Your task to perform on an android device: install app "Adobe Acrobat Reader: Edit PDF" Image 0: 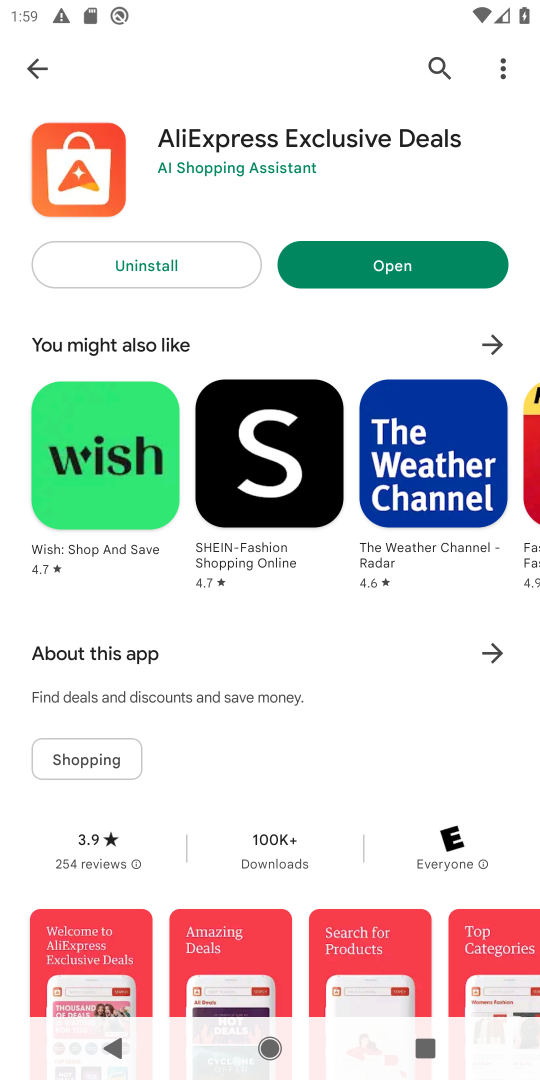
Step 0: click (444, 76)
Your task to perform on an android device: install app "Adobe Acrobat Reader: Edit PDF" Image 1: 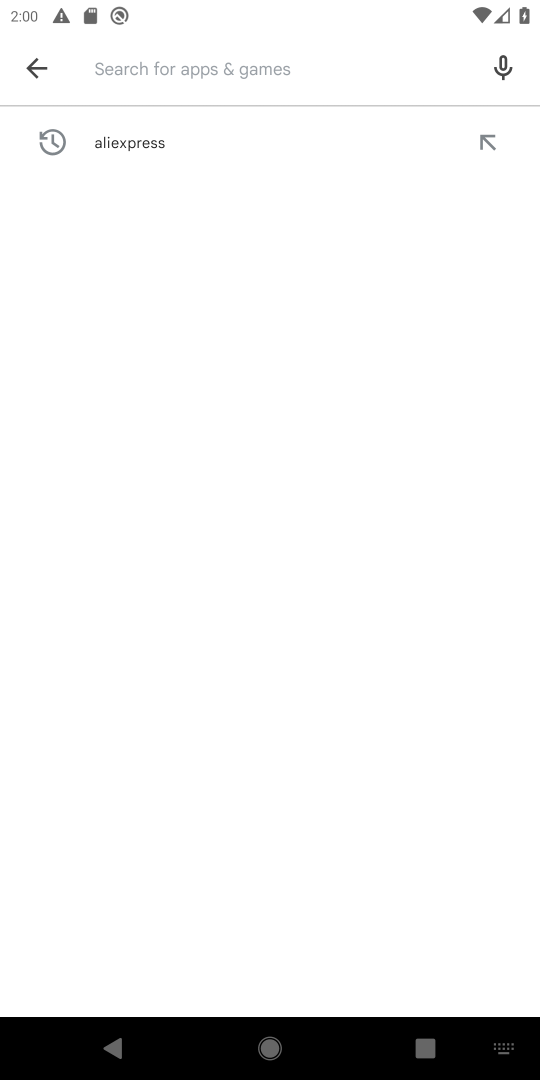
Step 1: type "Adobe Acrobat Reader: Edit PDF"
Your task to perform on an android device: install app "Adobe Acrobat Reader: Edit PDF" Image 2: 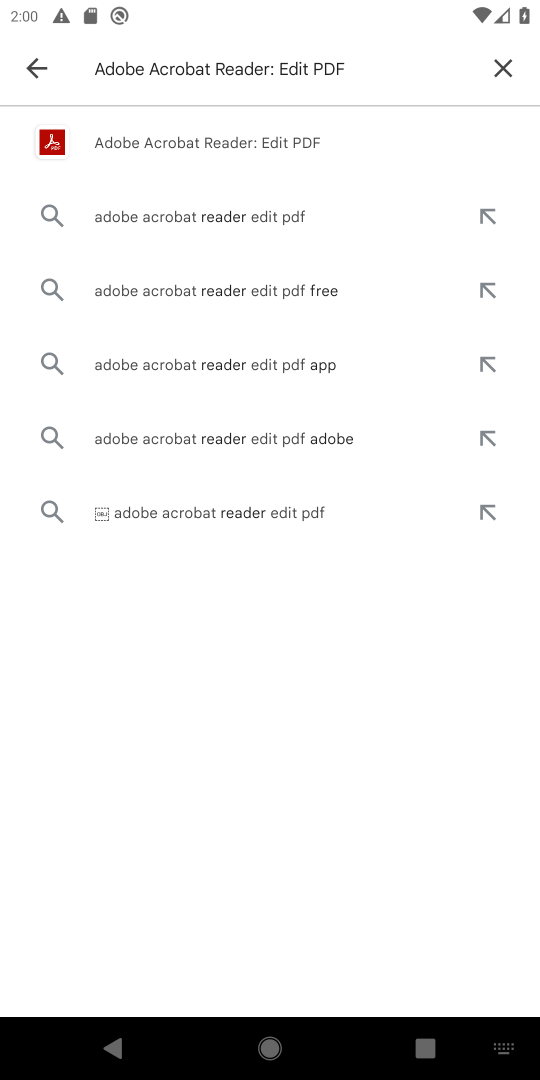
Step 2: click (189, 144)
Your task to perform on an android device: install app "Adobe Acrobat Reader: Edit PDF" Image 3: 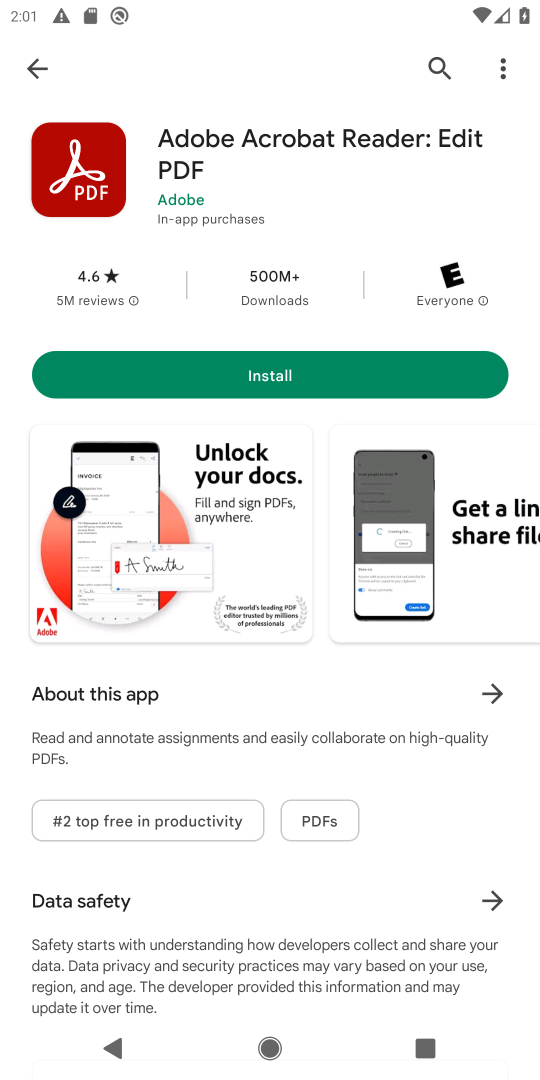
Step 3: click (263, 380)
Your task to perform on an android device: install app "Adobe Acrobat Reader: Edit PDF" Image 4: 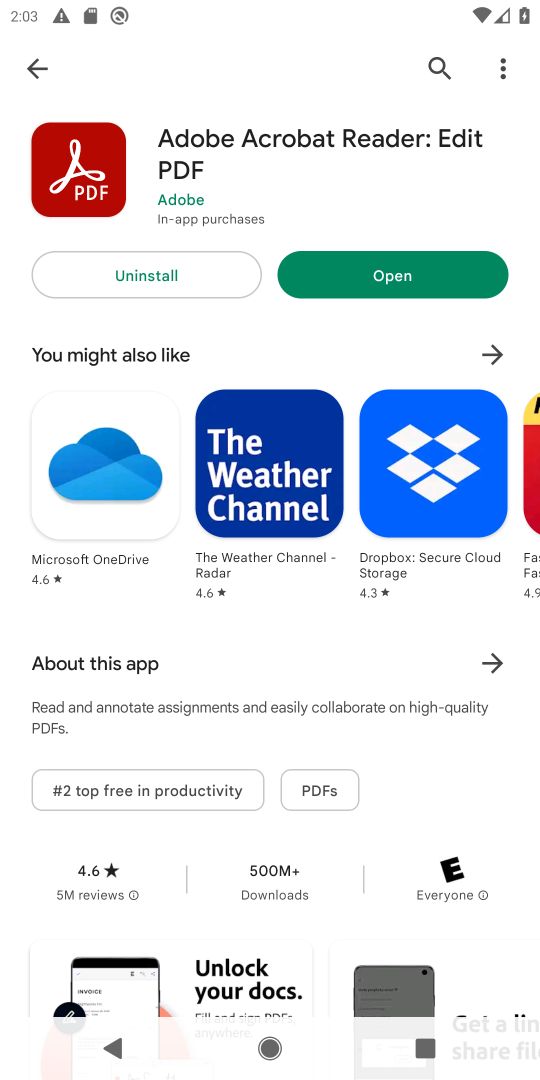
Step 4: click (393, 266)
Your task to perform on an android device: install app "Adobe Acrobat Reader: Edit PDF" Image 5: 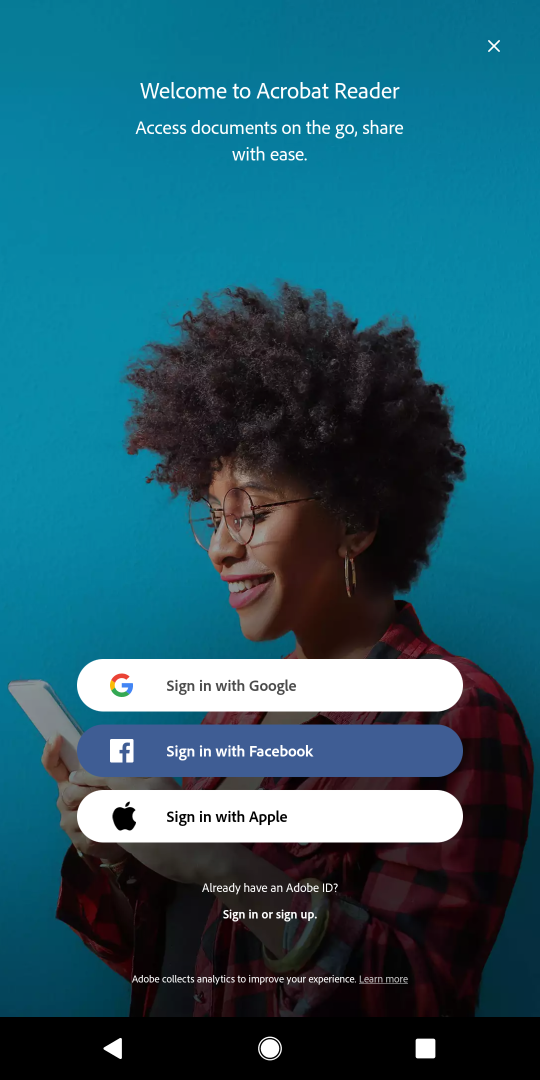
Step 5: click (262, 684)
Your task to perform on an android device: install app "Adobe Acrobat Reader: Edit PDF" Image 6: 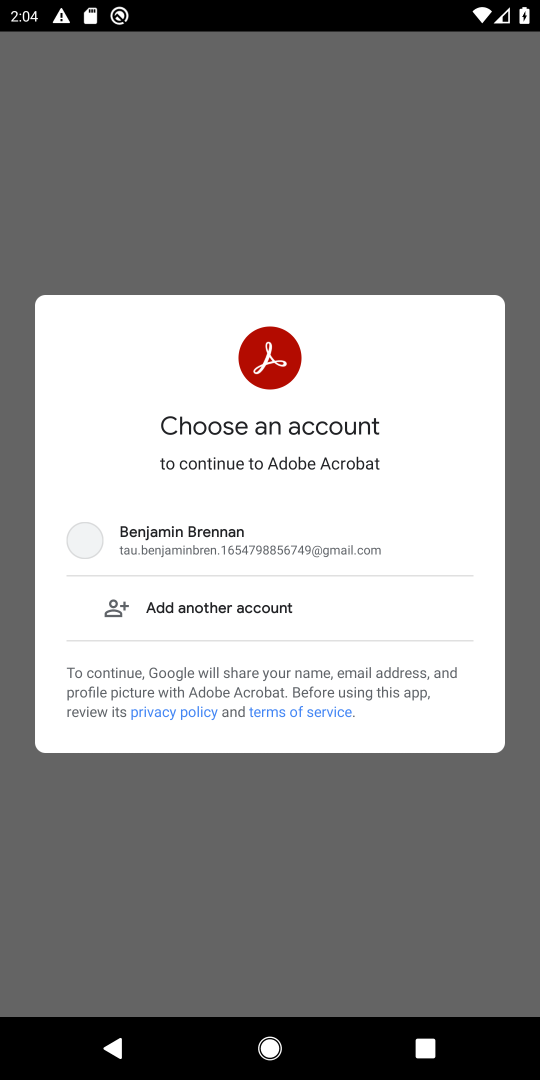
Step 6: click (269, 547)
Your task to perform on an android device: install app "Adobe Acrobat Reader: Edit PDF" Image 7: 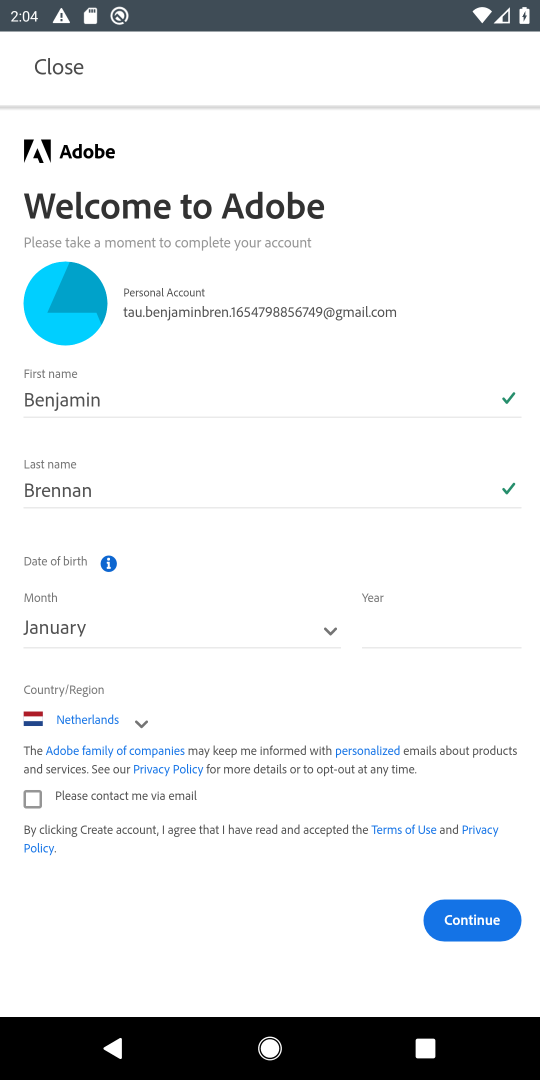
Step 7: click (399, 628)
Your task to perform on an android device: install app "Adobe Acrobat Reader: Edit PDF" Image 8: 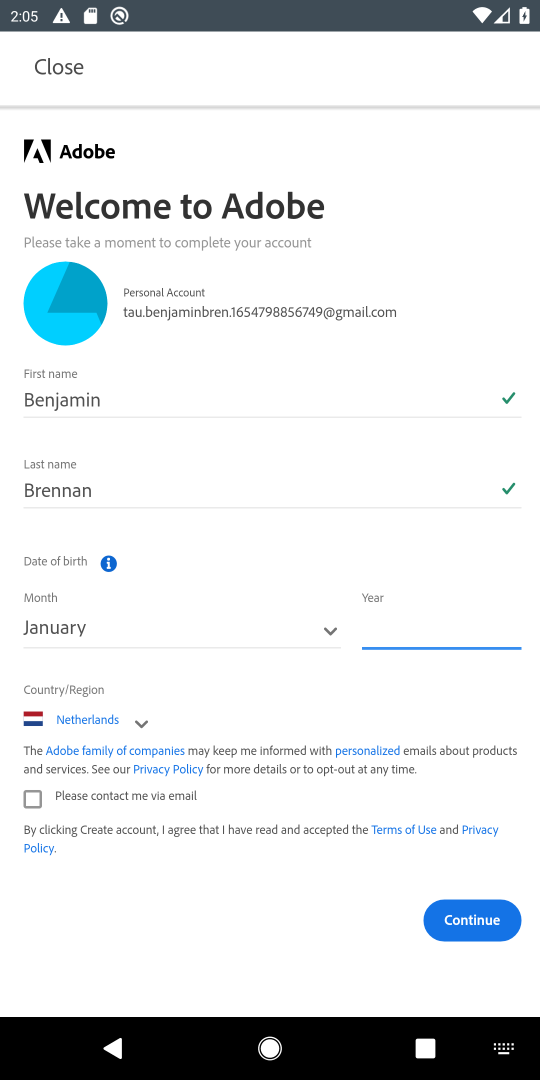
Step 8: type "1992"
Your task to perform on an android device: install app "Adobe Acrobat Reader: Edit PDF" Image 9: 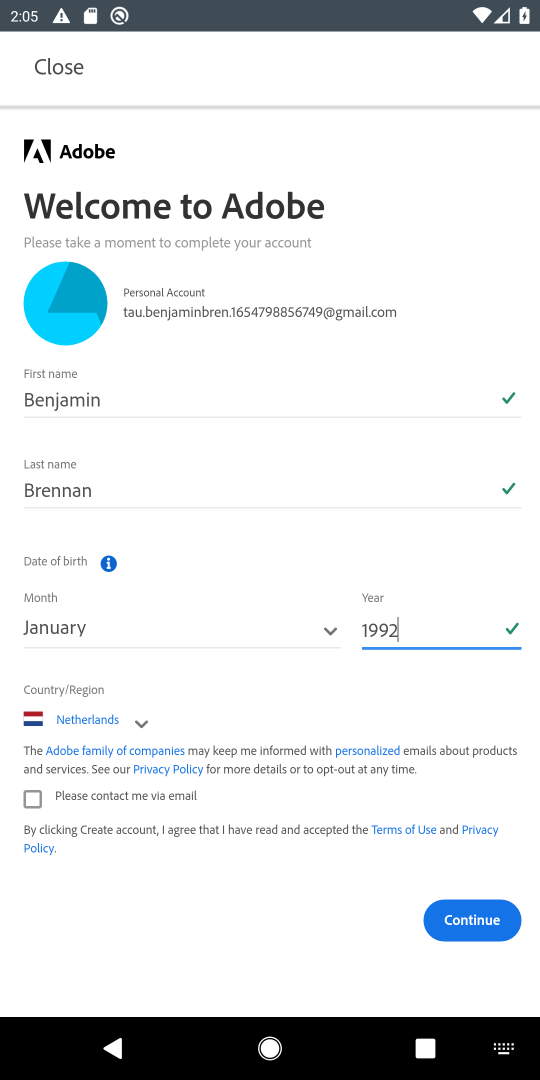
Step 9: click (463, 928)
Your task to perform on an android device: install app "Adobe Acrobat Reader: Edit PDF" Image 10: 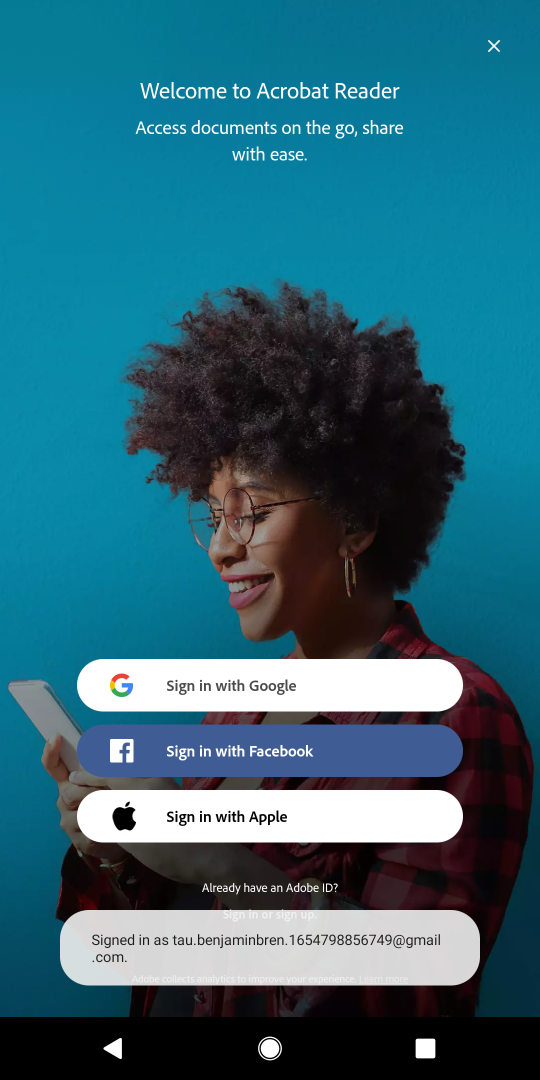
Step 10: click (302, 694)
Your task to perform on an android device: install app "Adobe Acrobat Reader: Edit PDF" Image 11: 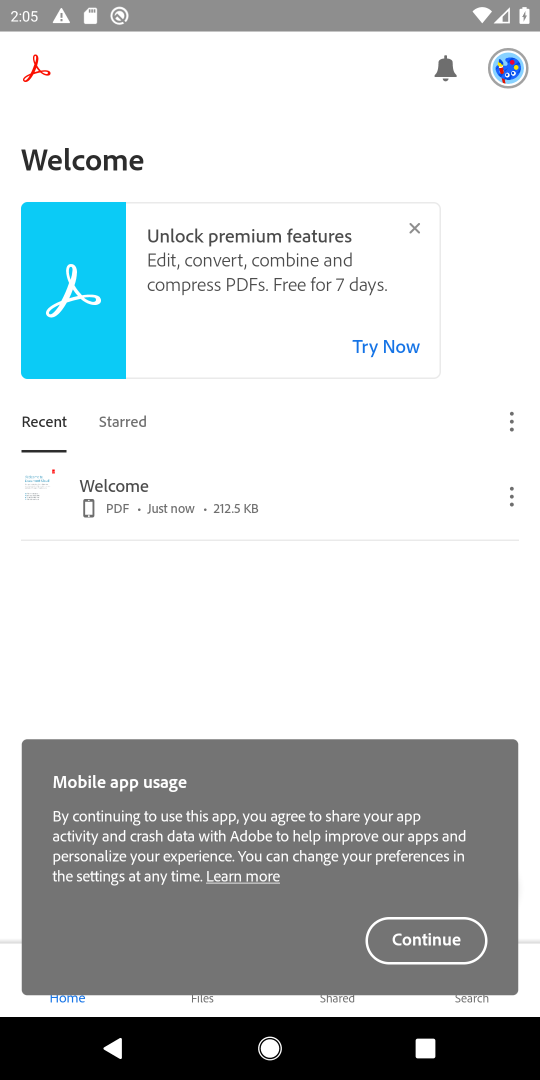
Step 11: task complete